Your task to perform on an android device: toggle show notifications on the lock screen Image 0: 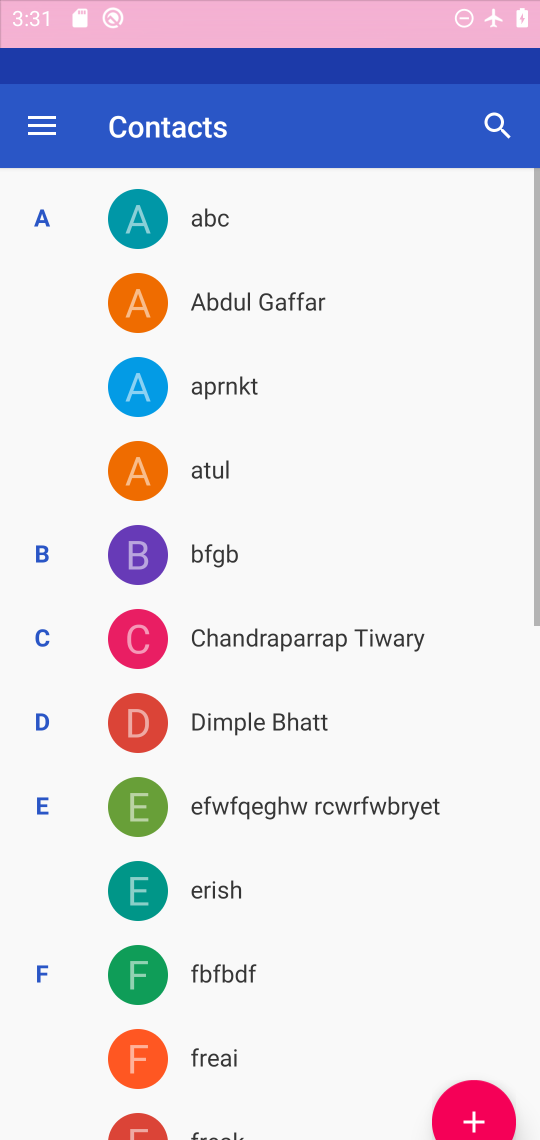
Step 0: press back button
Your task to perform on an android device: toggle show notifications on the lock screen Image 1: 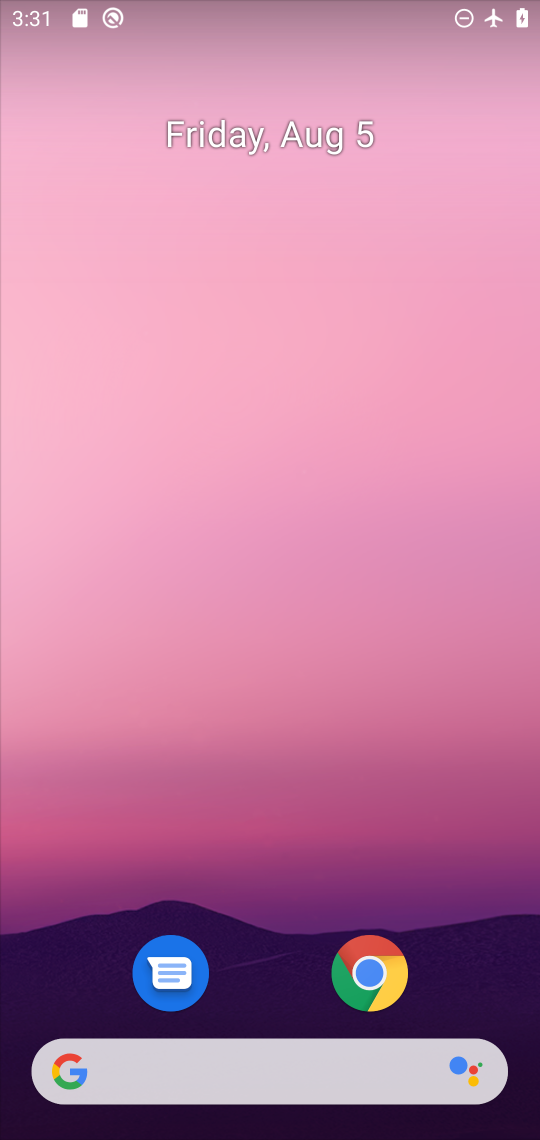
Step 1: drag from (242, 1013) to (531, 27)
Your task to perform on an android device: toggle show notifications on the lock screen Image 2: 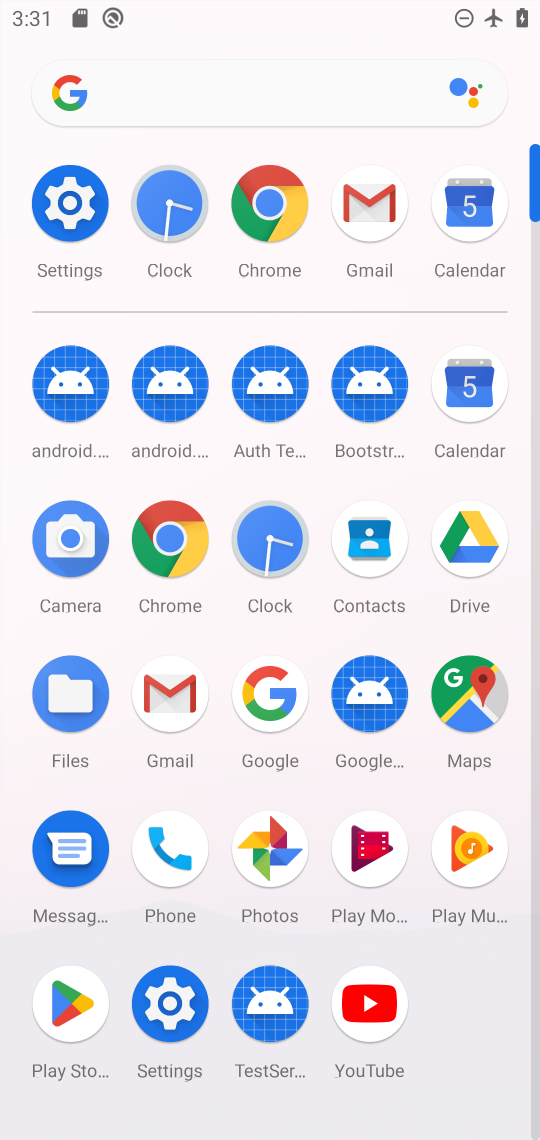
Step 2: click (25, 227)
Your task to perform on an android device: toggle show notifications on the lock screen Image 3: 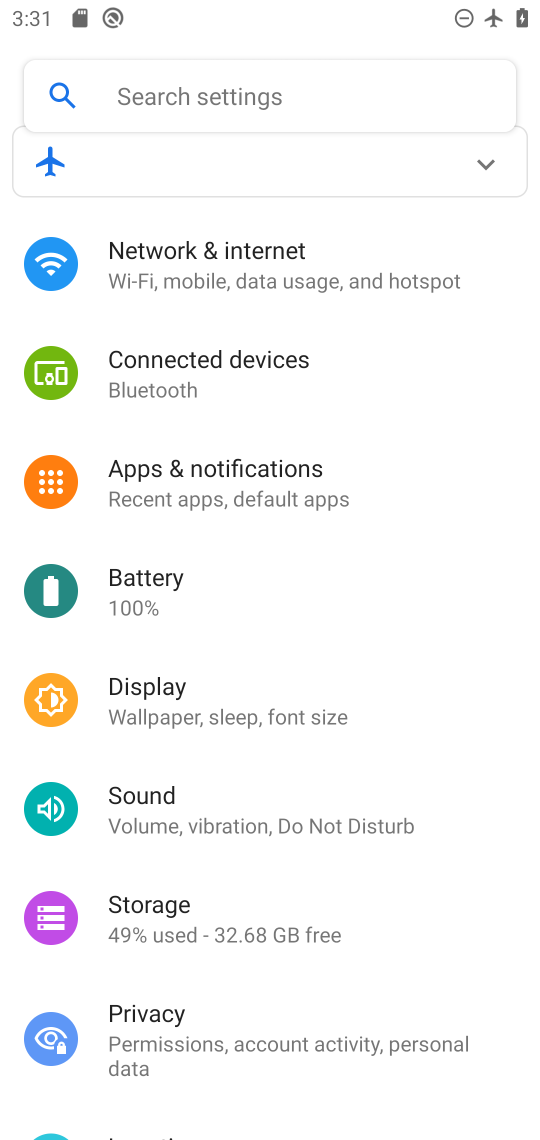
Step 3: drag from (209, 862) to (256, 405)
Your task to perform on an android device: toggle show notifications on the lock screen Image 4: 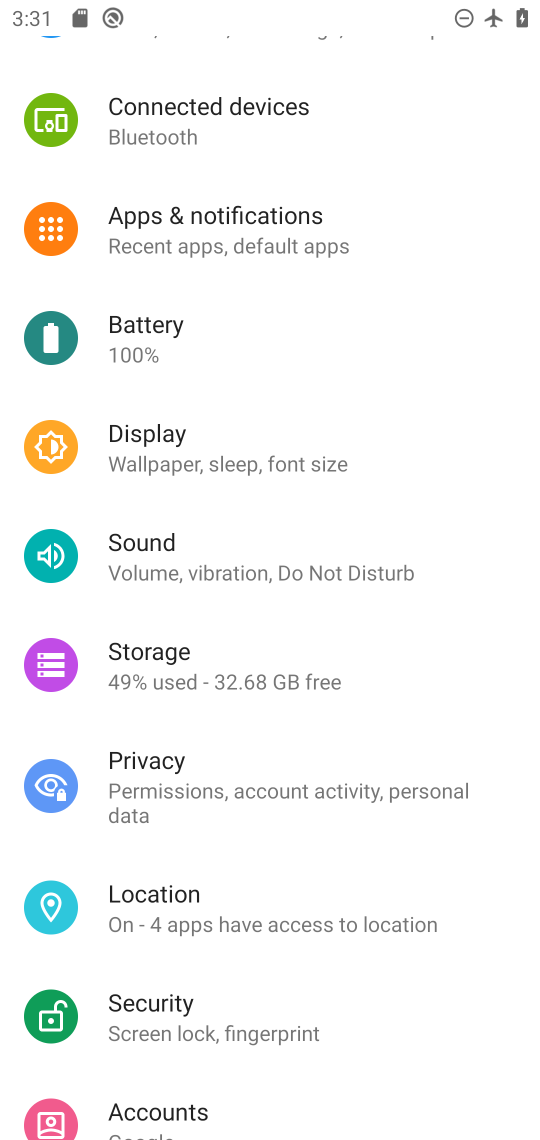
Step 4: drag from (183, 982) to (181, 226)
Your task to perform on an android device: toggle show notifications on the lock screen Image 5: 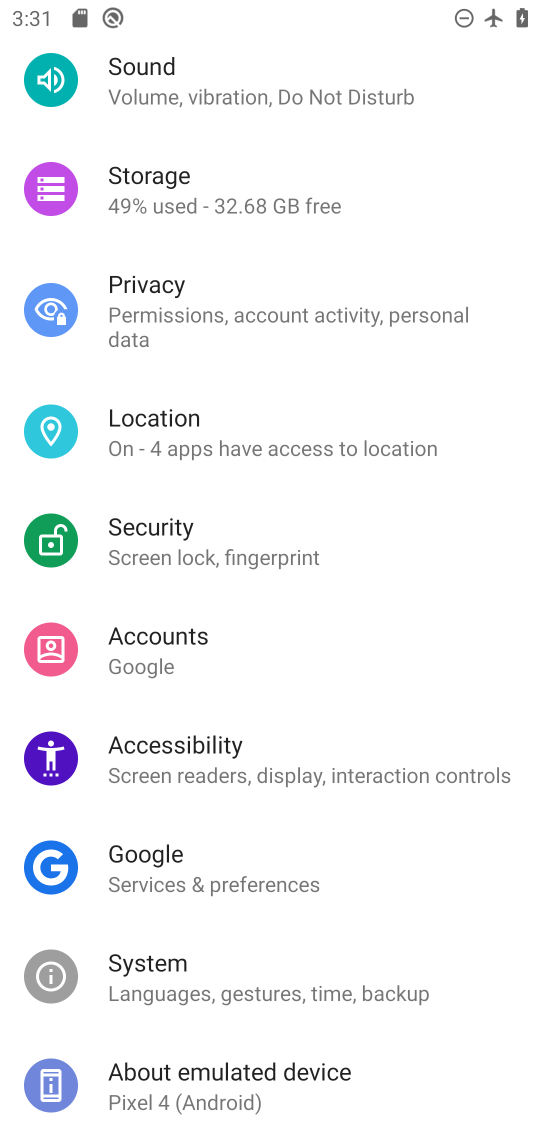
Step 5: click (254, 971)
Your task to perform on an android device: toggle show notifications on the lock screen Image 6: 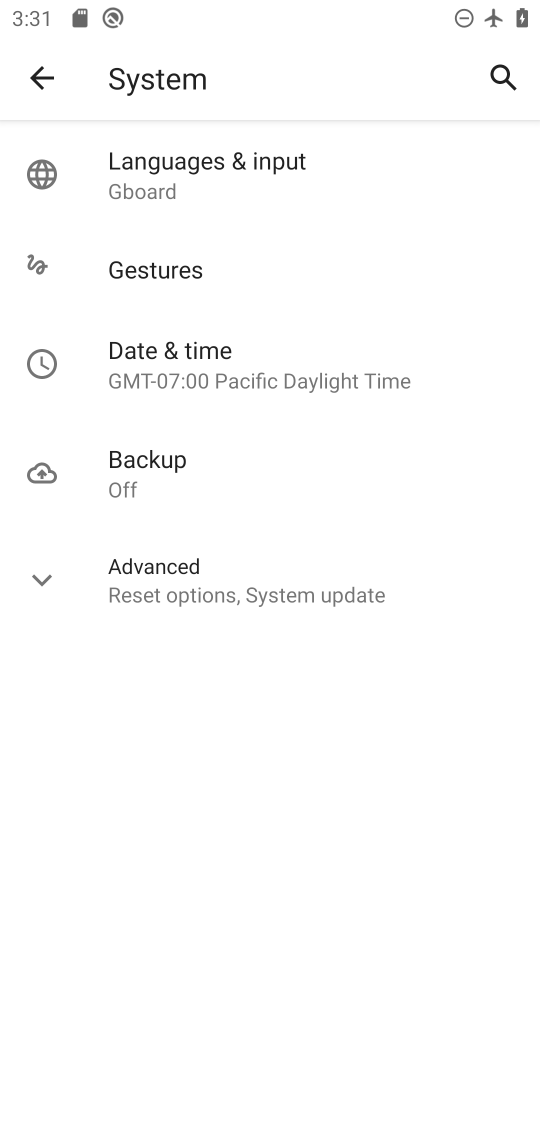
Step 6: task complete